Your task to perform on an android device: Open Youtube and go to "Your channel" Image 0: 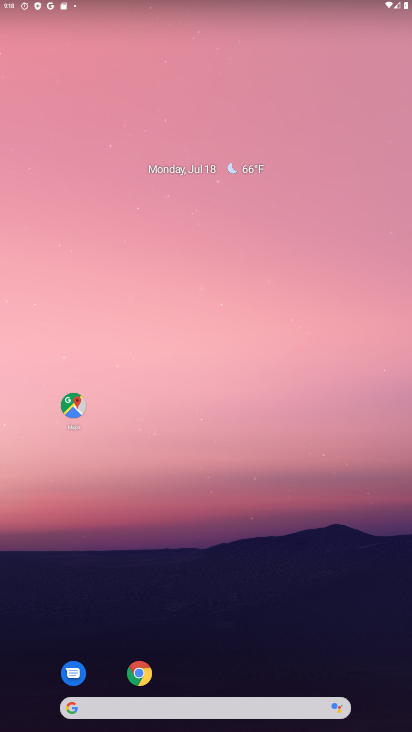
Step 0: drag from (207, 679) to (206, 153)
Your task to perform on an android device: Open Youtube and go to "Your channel" Image 1: 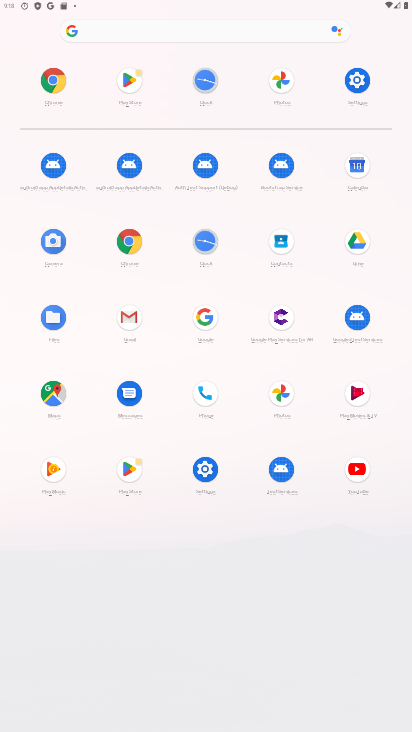
Step 1: click (351, 473)
Your task to perform on an android device: Open Youtube and go to "Your channel" Image 2: 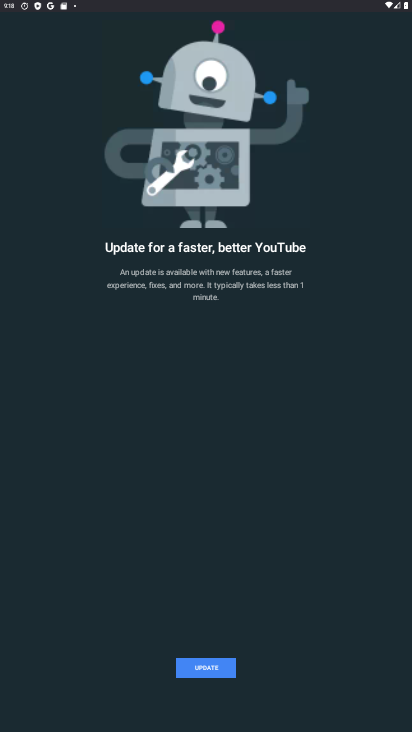
Step 2: click (204, 667)
Your task to perform on an android device: Open Youtube and go to "Your channel" Image 3: 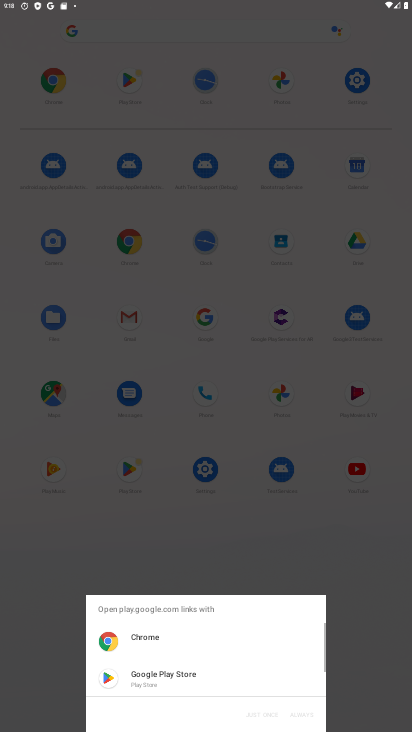
Step 3: click (157, 670)
Your task to perform on an android device: Open Youtube and go to "Your channel" Image 4: 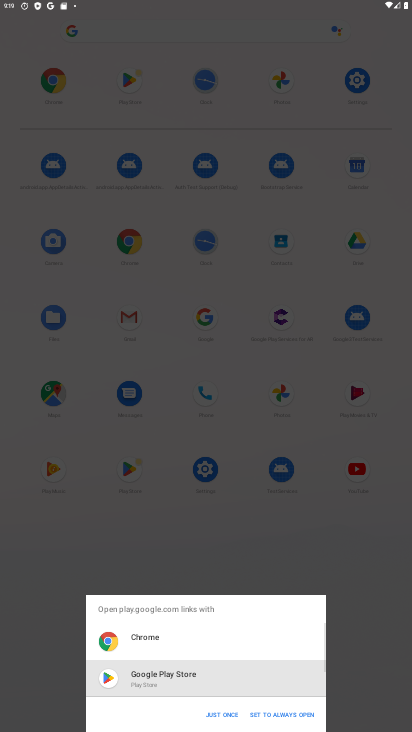
Step 4: click (219, 708)
Your task to perform on an android device: Open Youtube and go to "Your channel" Image 5: 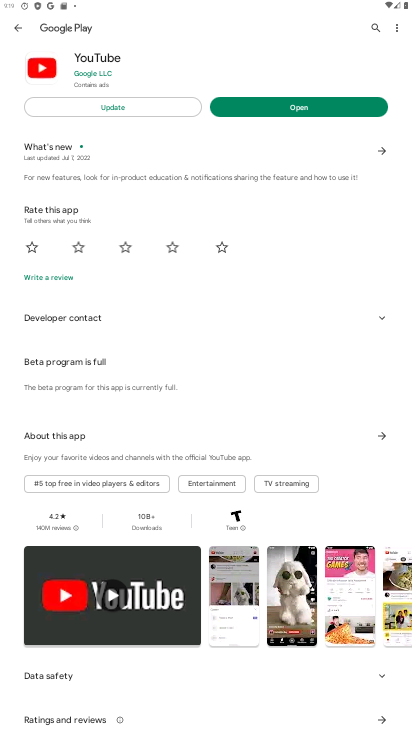
Step 5: click (135, 104)
Your task to perform on an android device: Open Youtube and go to "Your channel" Image 6: 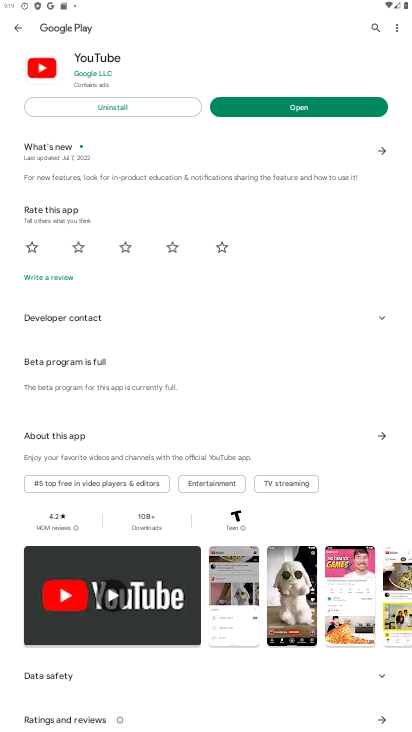
Step 6: click (316, 111)
Your task to perform on an android device: Open Youtube and go to "Your channel" Image 7: 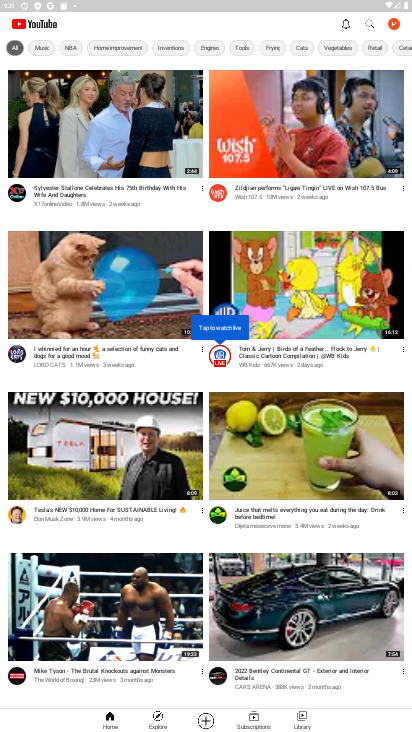
Step 7: click (392, 22)
Your task to perform on an android device: Open Youtube and go to "Your channel" Image 8: 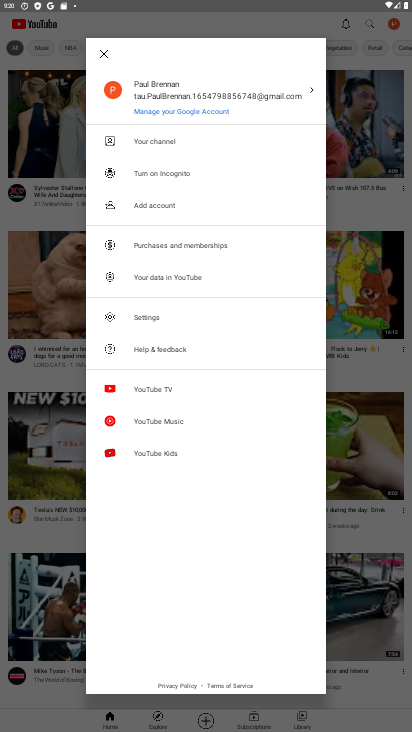
Step 8: click (192, 143)
Your task to perform on an android device: Open Youtube and go to "Your channel" Image 9: 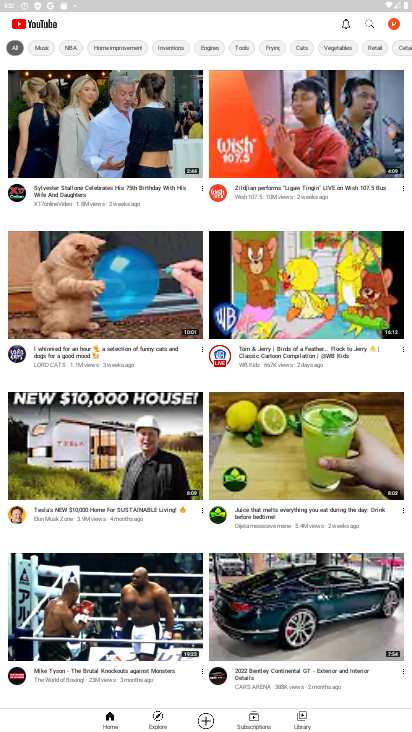
Step 9: task complete